Your task to perform on an android device: Open Chrome and go to the settings page Image 0: 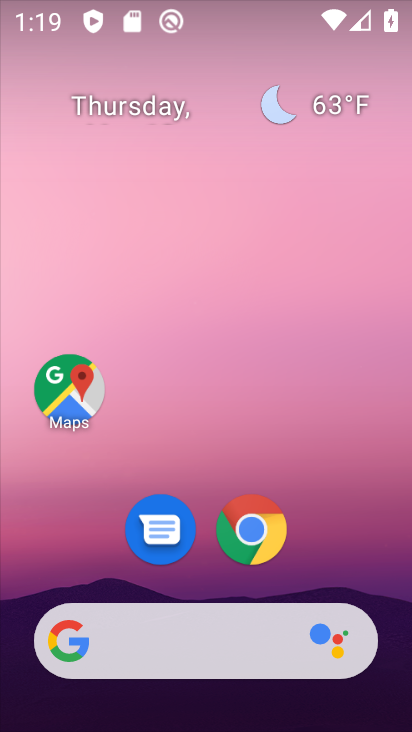
Step 0: click (253, 528)
Your task to perform on an android device: Open Chrome and go to the settings page Image 1: 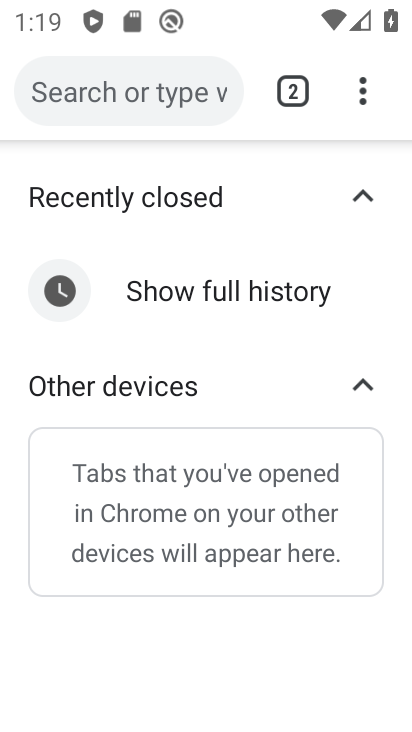
Step 1: click (363, 91)
Your task to perform on an android device: Open Chrome and go to the settings page Image 2: 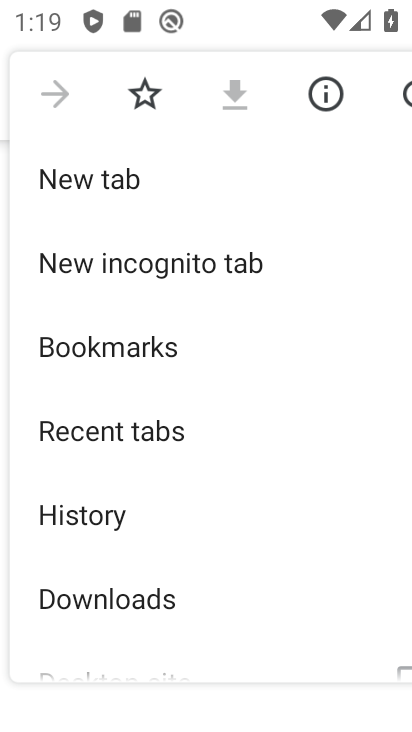
Step 2: drag from (168, 509) to (199, 418)
Your task to perform on an android device: Open Chrome and go to the settings page Image 3: 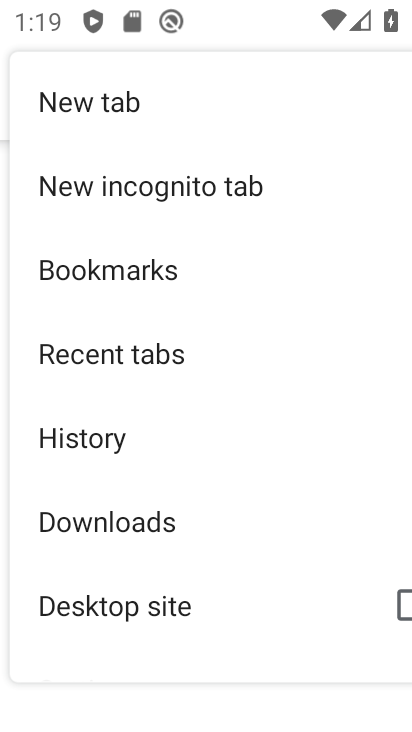
Step 3: drag from (177, 534) to (231, 425)
Your task to perform on an android device: Open Chrome and go to the settings page Image 4: 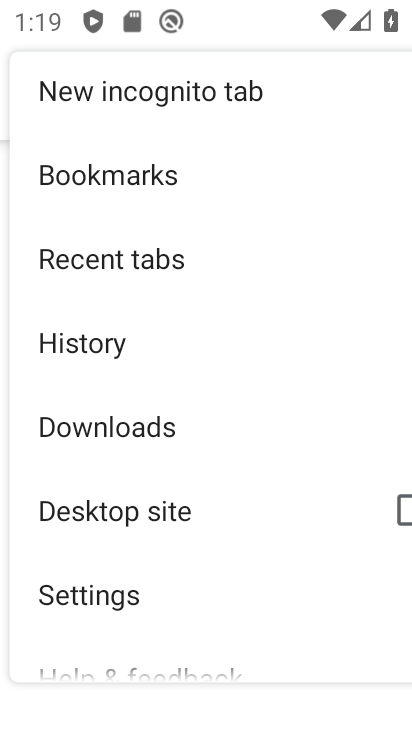
Step 4: drag from (167, 553) to (253, 421)
Your task to perform on an android device: Open Chrome and go to the settings page Image 5: 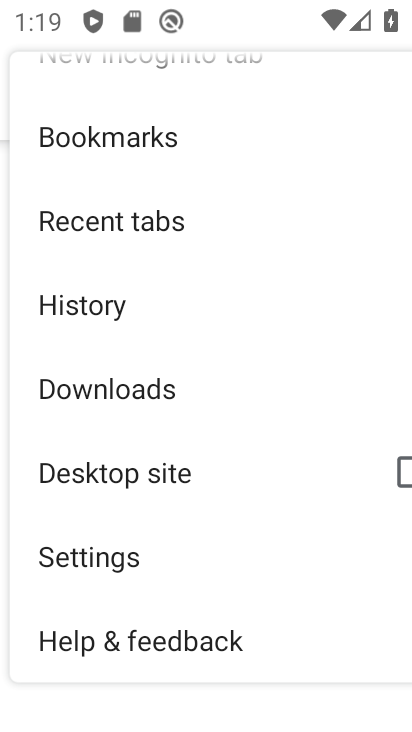
Step 5: click (129, 555)
Your task to perform on an android device: Open Chrome and go to the settings page Image 6: 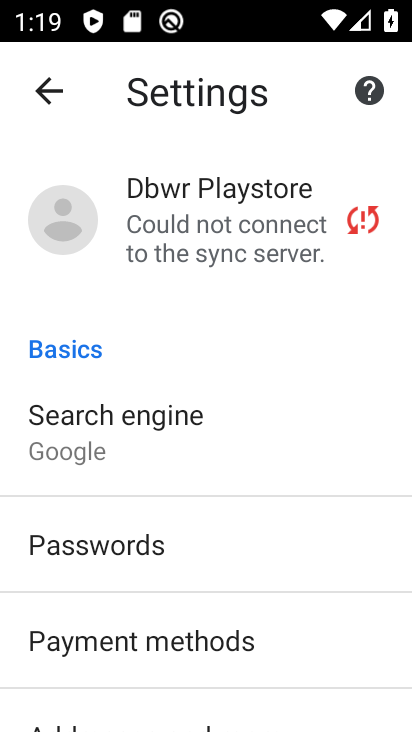
Step 6: task complete